Your task to perform on an android device: check battery use Image 0: 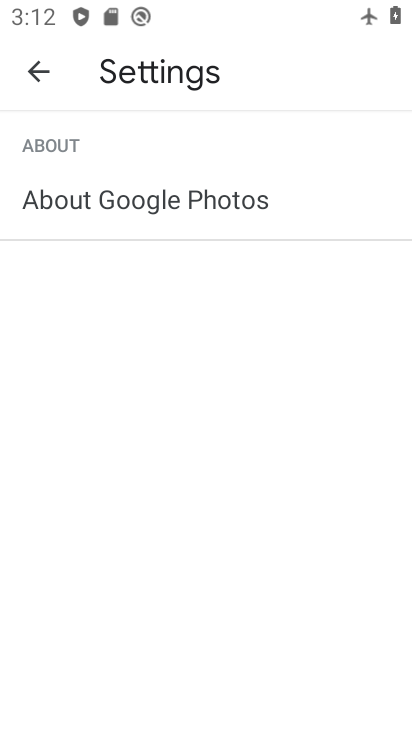
Step 0: press home button
Your task to perform on an android device: check battery use Image 1: 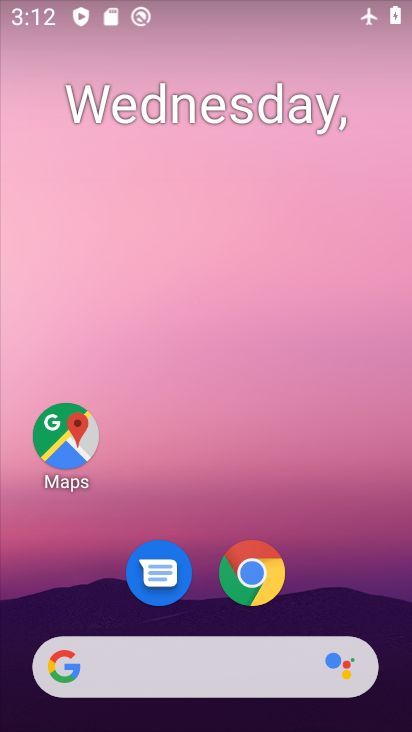
Step 1: drag from (169, 637) to (254, 238)
Your task to perform on an android device: check battery use Image 2: 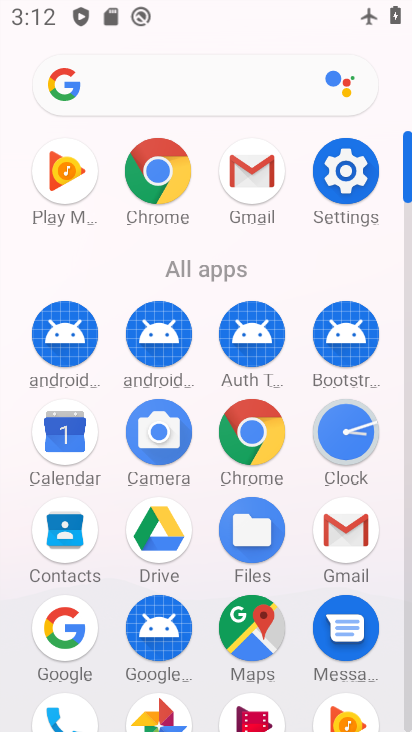
Step 2: click (349, 168)
Your task to perform on an android device: check battery use Image 3: 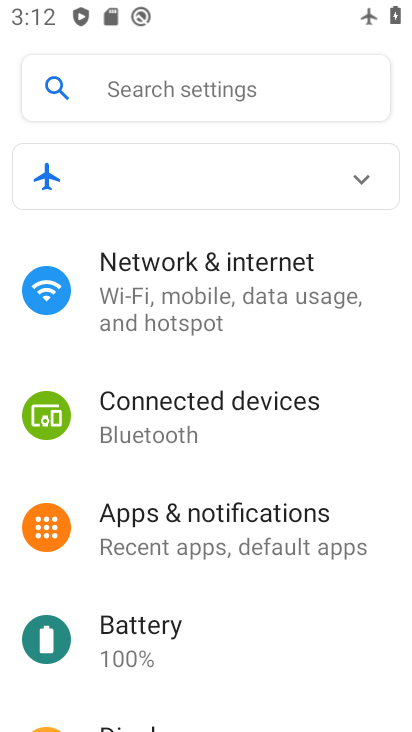
Step 3: click (144, 631)
Your task to perform on an android device: check battery use Image 4: 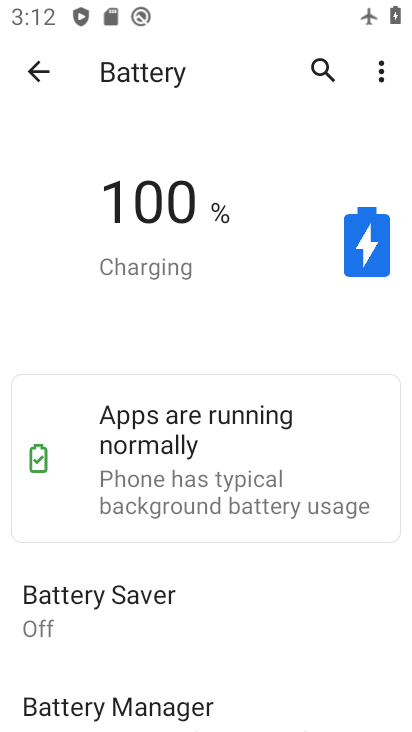
Step 4: task complete